Your task to perform on an android device: open app "PlayWell" (install if not already installed) and enter user name: "metric@gmail.com" and password: "bumblebee" Image 0: 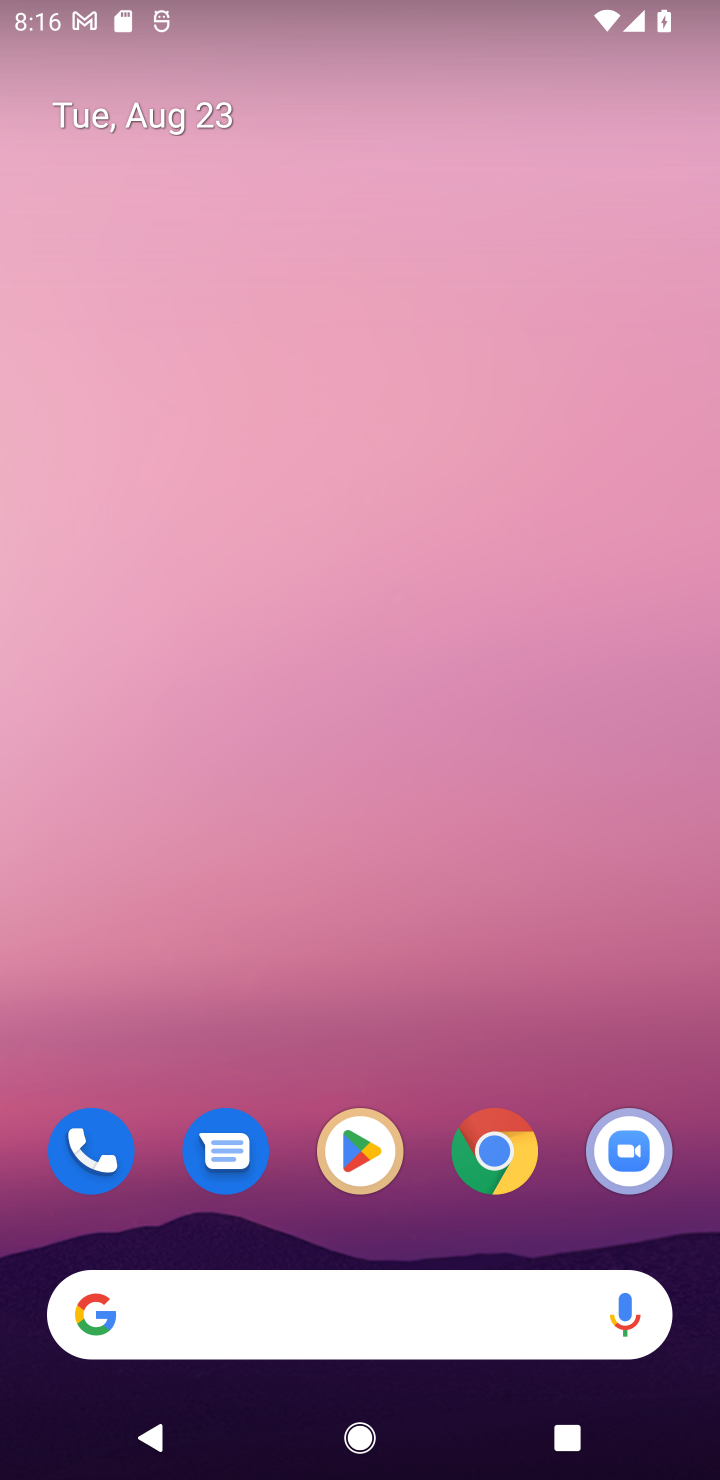
Step 0: click (339, 1165)
Your task to perform on an android device: open app "PlayWell" (install if not already installed) and enter user name: "metric@gmail.com" and password: "bumblebee" Image 1: 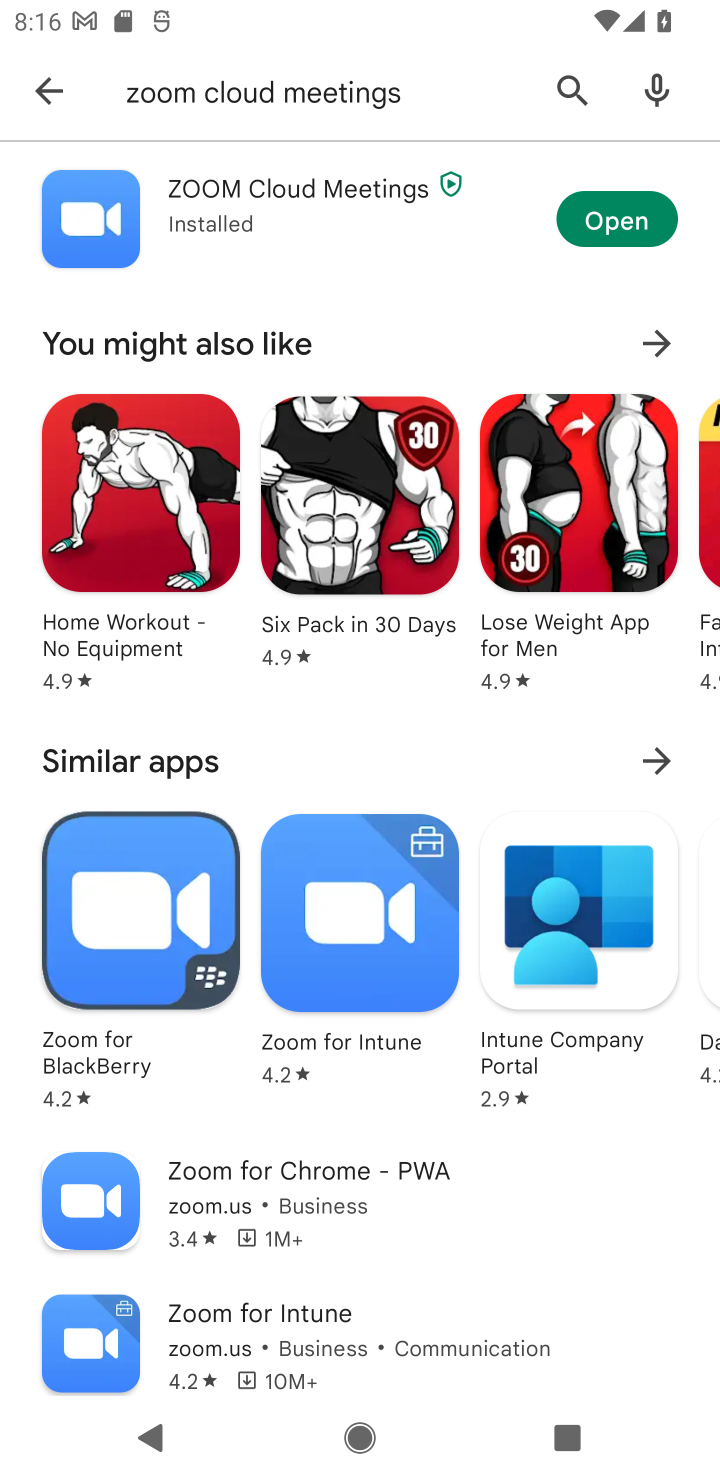
Step 1: click (46, 91)
Your task to perform on an android device: open app "PlayWell" (install if not already installed) and enter user name: "metric@gmail.com" and password: "bumblebee" Image 2: 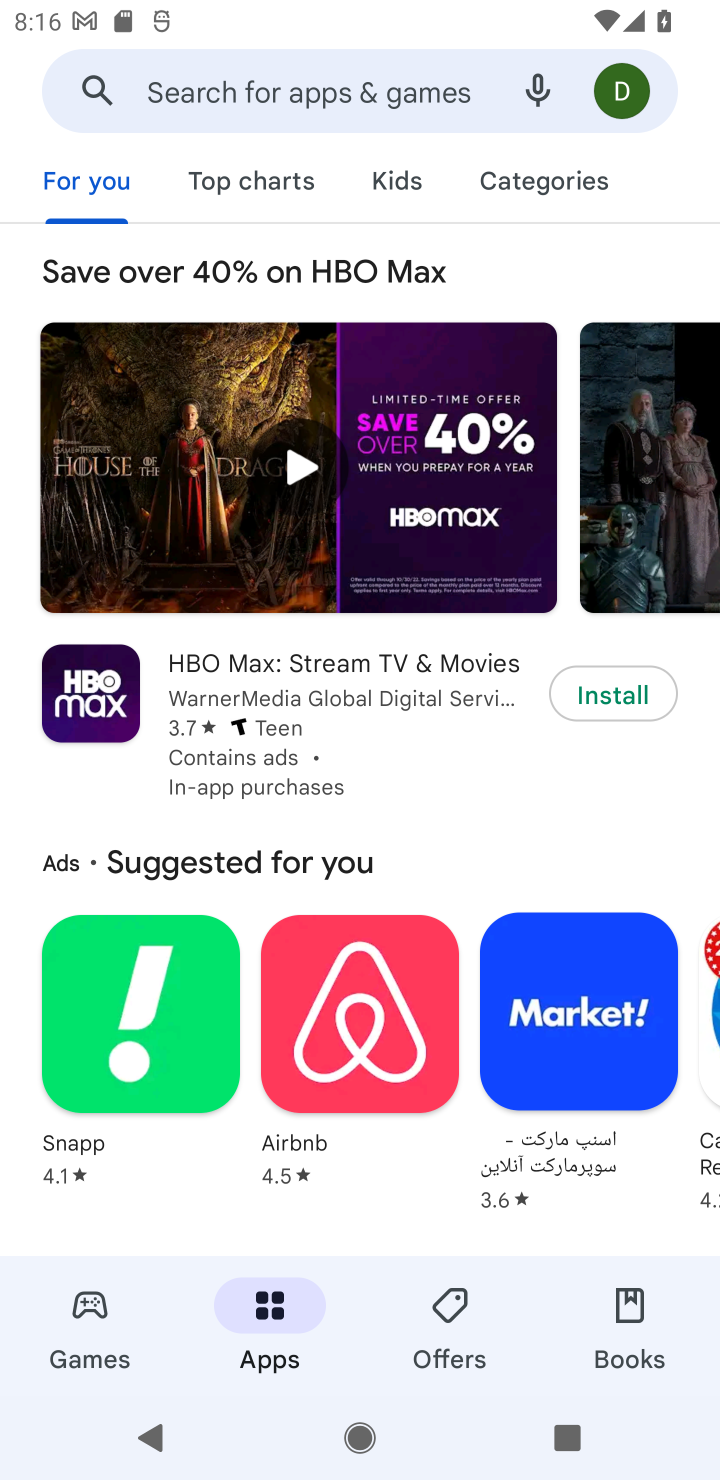
Step 2: click (260, 71)
Your task to perform on an android device: open app "PlayWell" (install if not already installed) and enter user name: "metric@gmail.com" and password: "bumblebee" Image 3: 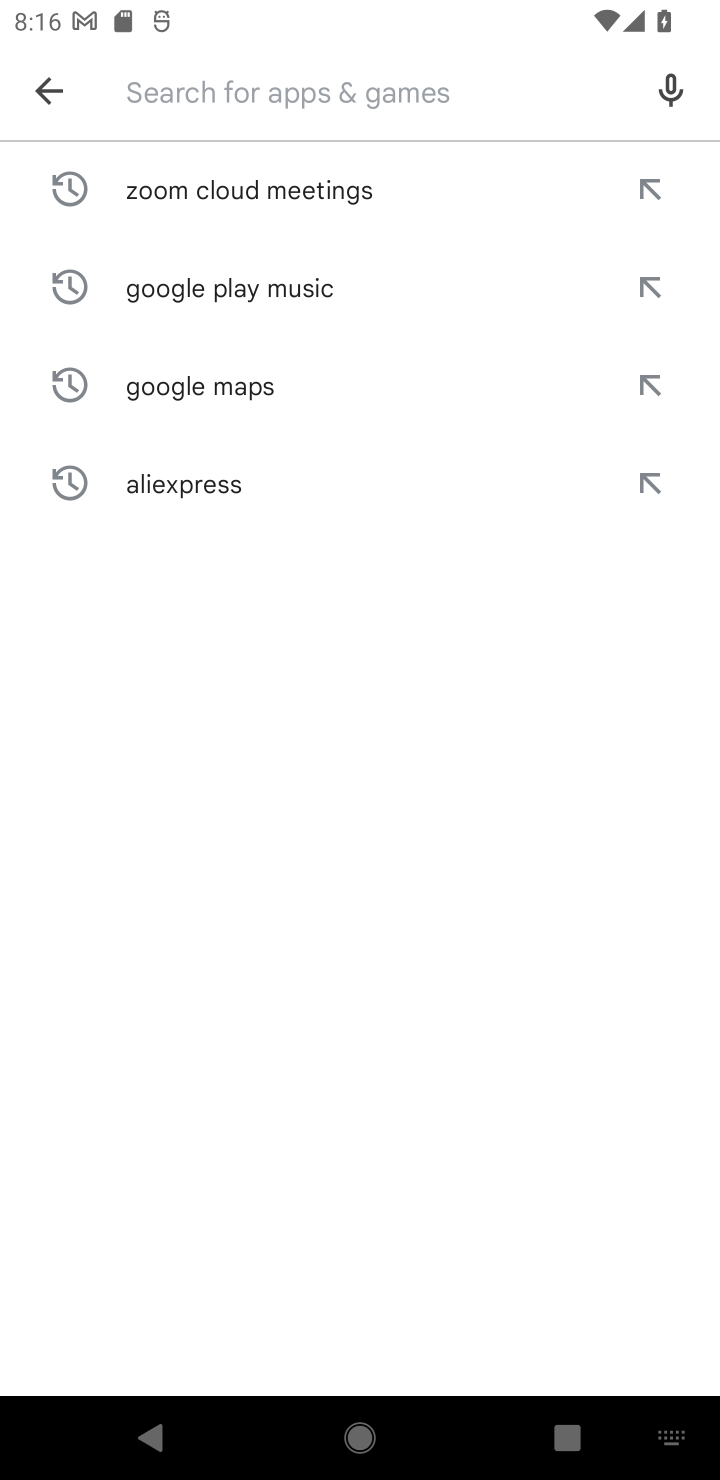
Step 3: type "PlayWell"
Your task to perform on an android device: open app "PlayWell" (install if not already installed) and enter user name: "metric@gmail.com" and password: "bumblebee" Image 4: 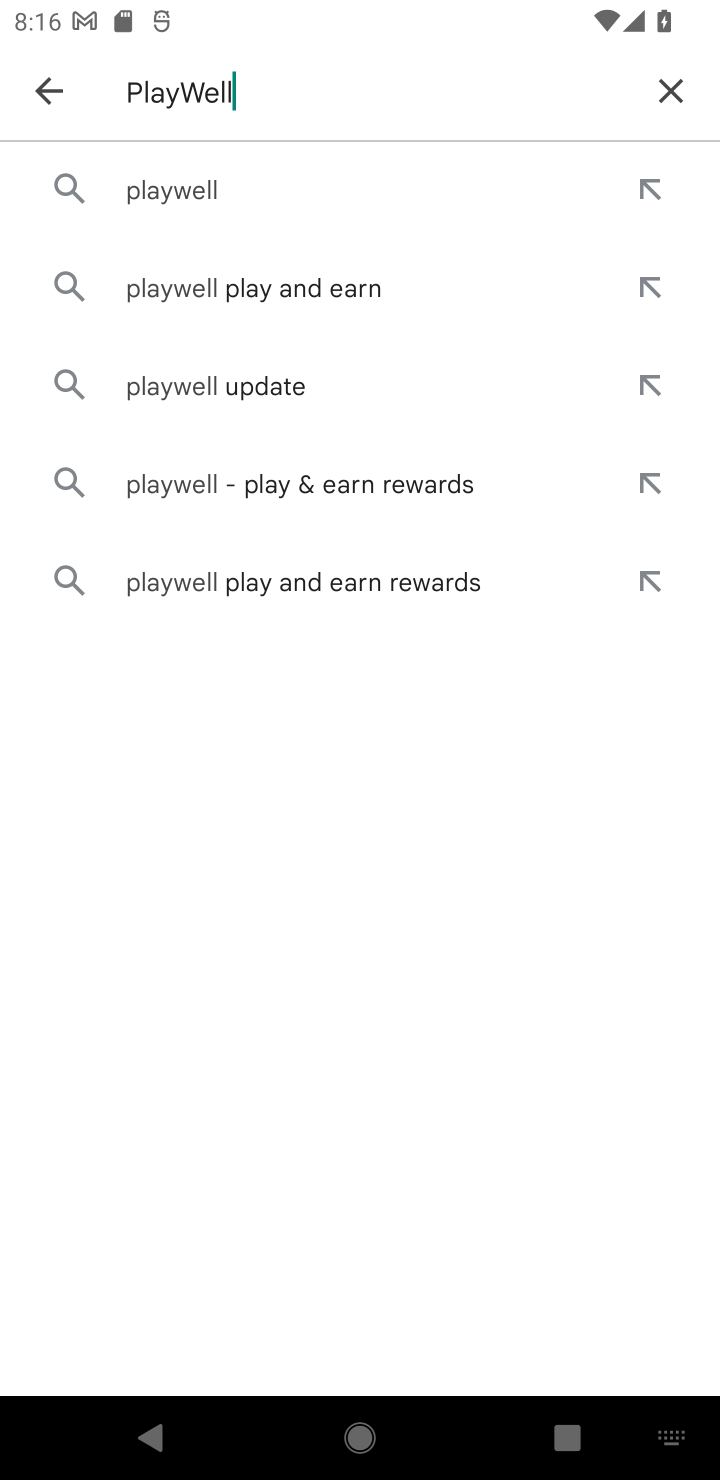
Step 4: click (161, 185)
Your task to perform on an android device: open app "PlayWell" (install if not already installed) and enter user name: "metric@gmail.com" and password: "bumblebee" Image 5: 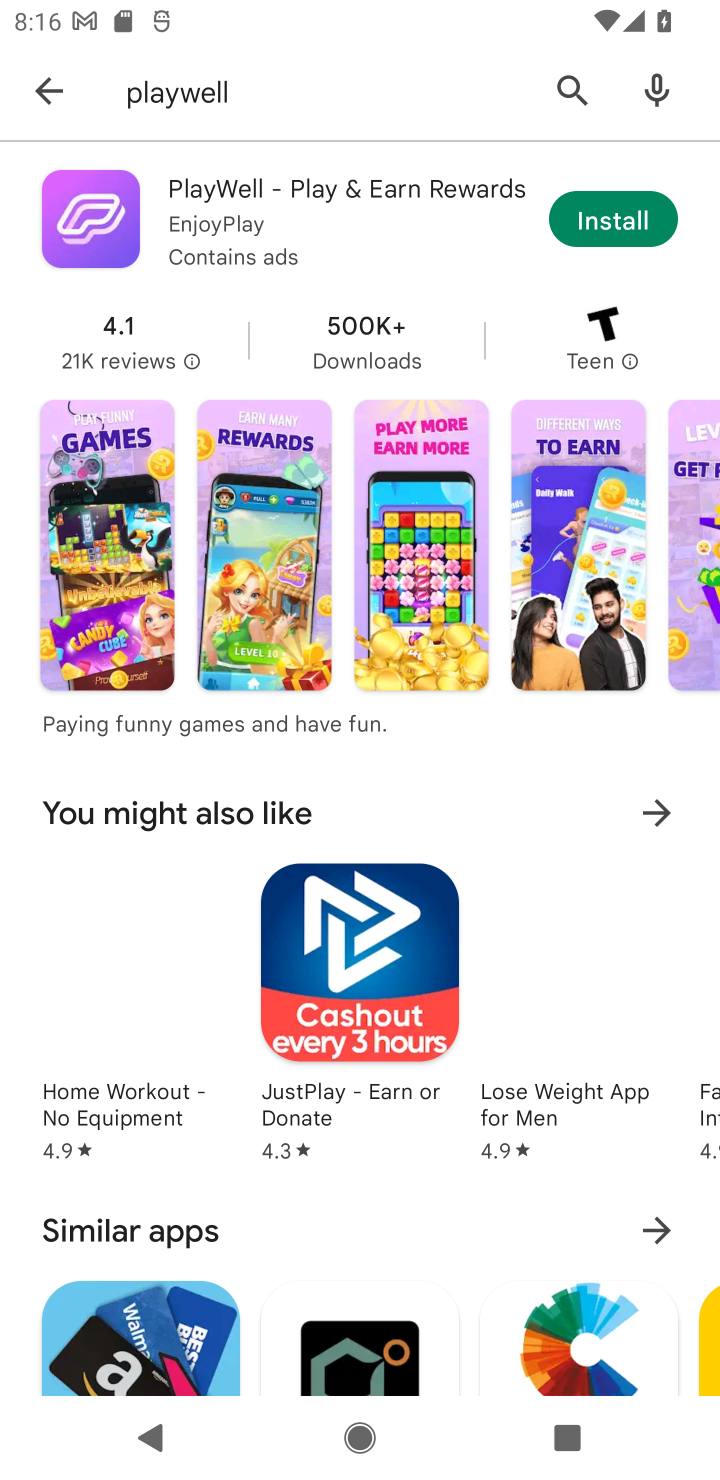
Step 5: click (615, 236)
Your task to perform on an android device: open app "PlayWell" (install if not already installed) and enter user name: "metric@gmail.com" and password: "bumblebee" Image 6: 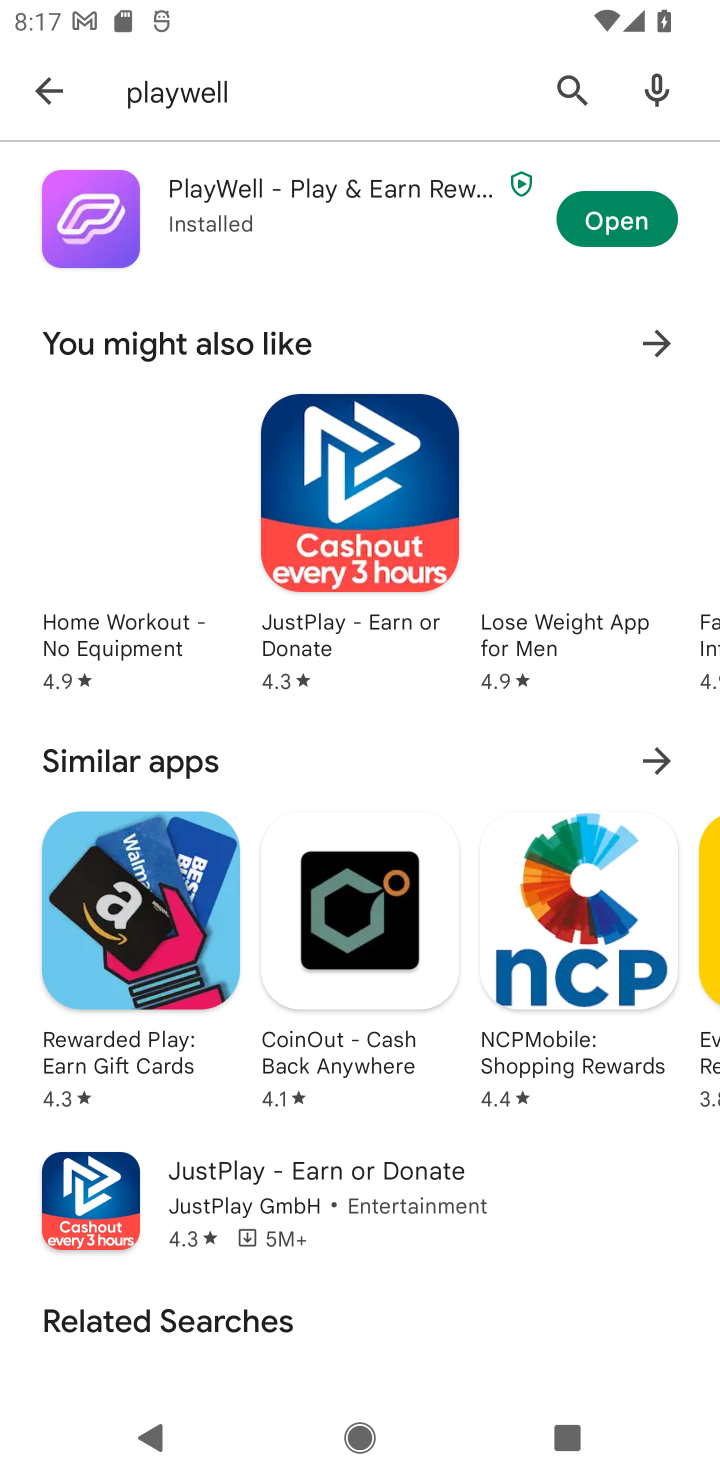
Step 6: click (610, 225)
Your task to perform on an android device: open app "PlayWell" (install if not already installed) and enter user name: "metric@gmail.com" and password: "bumblebee" Image 7: 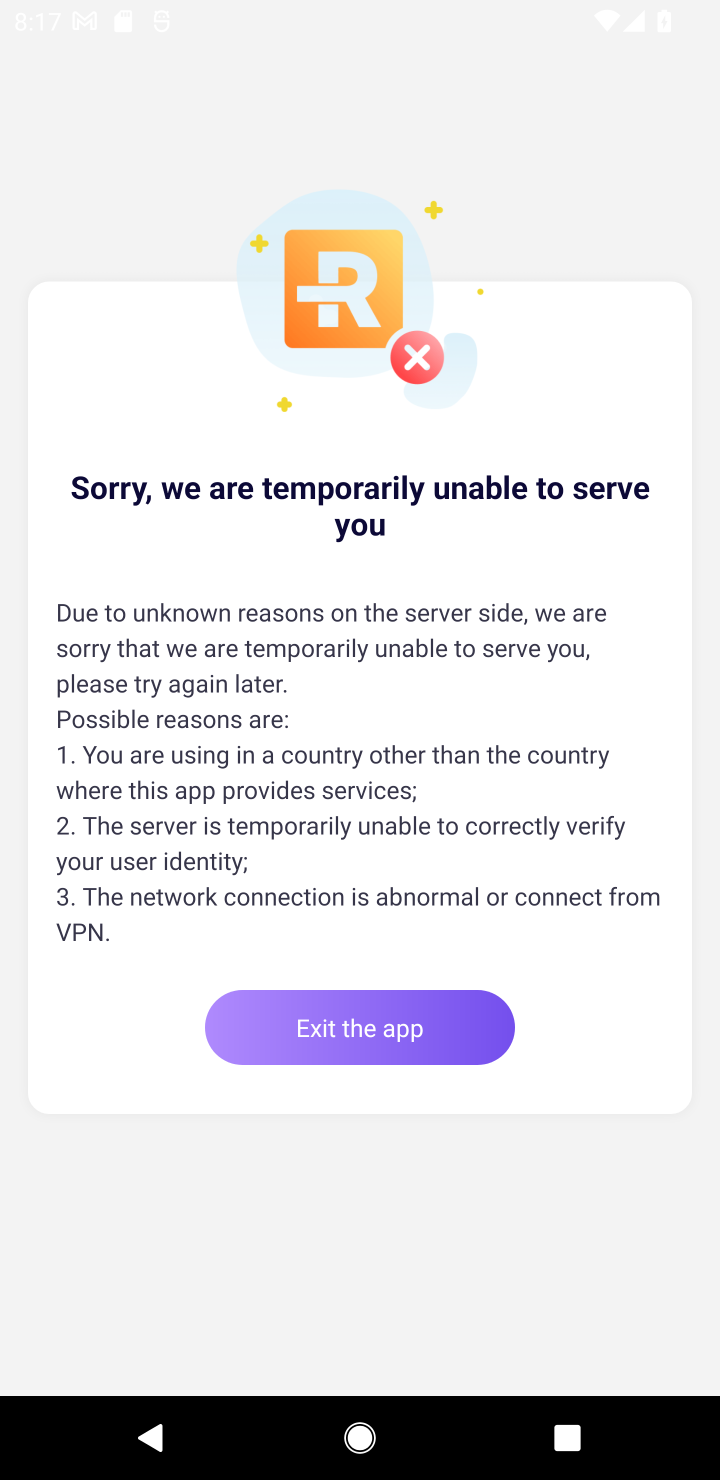
Step 7: task complete